Your task to perform on an android device: Show me popular games on the Play Store Image 0: 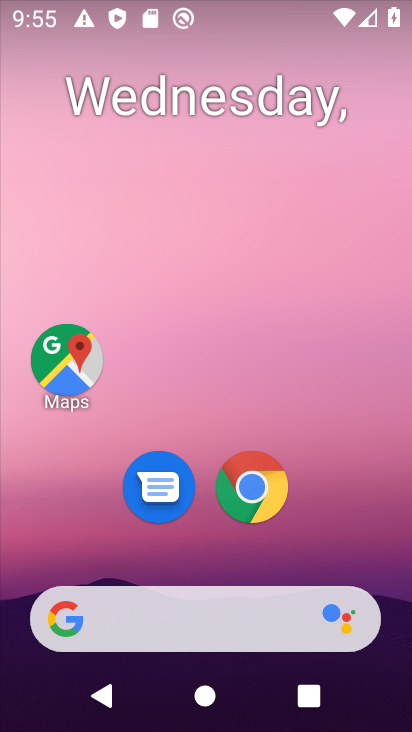
Step 0: drag from (209, 562) to (155, 76)
Your task to perform on an android device: Show me popular games on the Play Store Image 1: 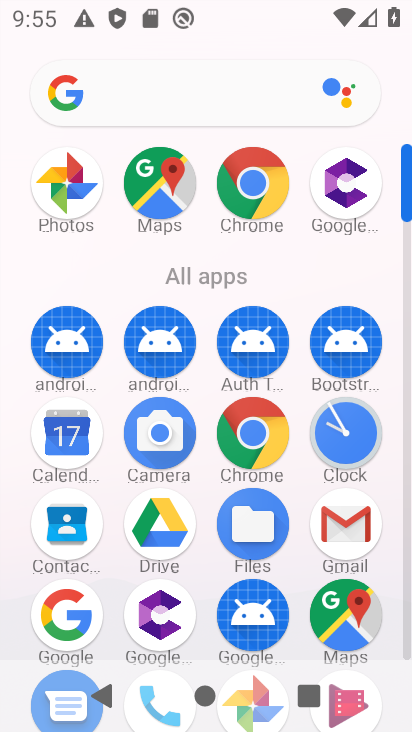
Step 1: drag from (206, 500) to (192, 239)
Your task to perform on an android device: Show me popular games on the Play Store Image 2: 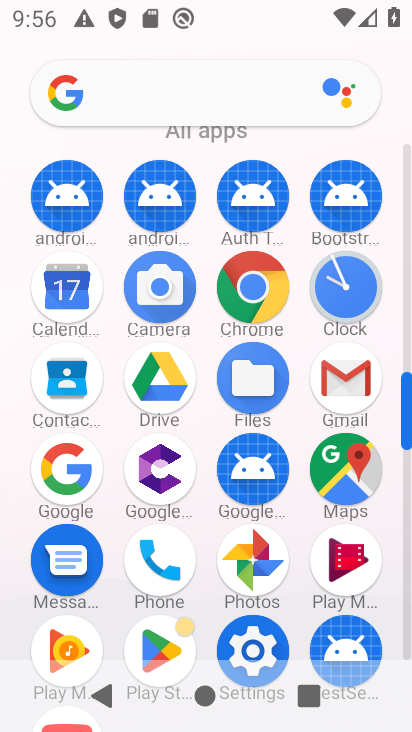
Step 2: drag from (209, 586) to (189, 229)
Your task to perform on an android device: Show me popular games on the Play Store Image 3: 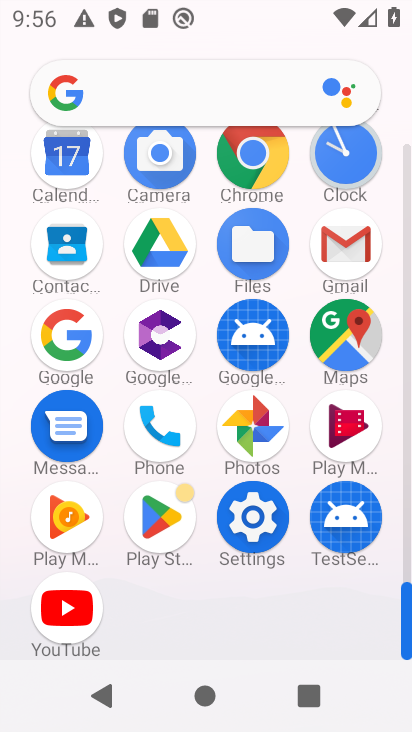
Step 3: click (165, 498)
Your task to perform on an android device: Show me popular games on the Play Store Image 4: 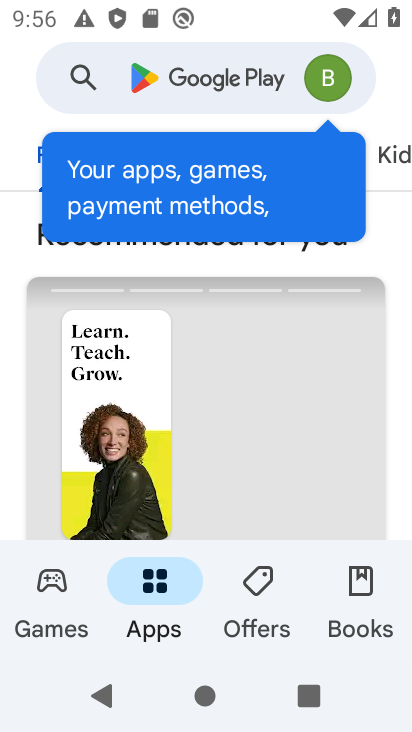
Step 4: click (47, 587)
Your task to perform on an android device: Show me popular games on the Play Store Image 5: 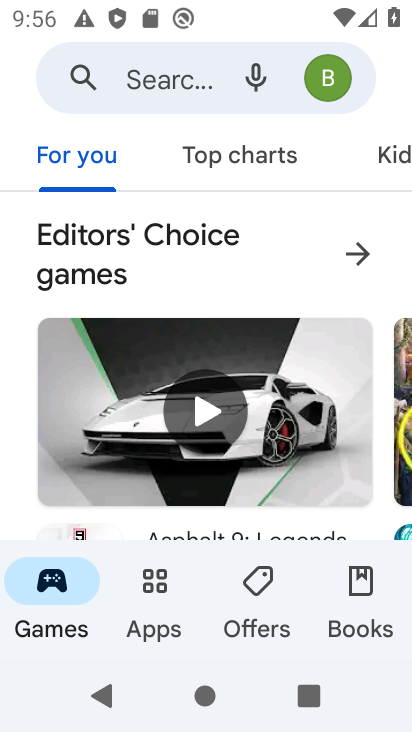
Step 5: task complete